Your task to perform on an android device: Go to battery settings Image 0: 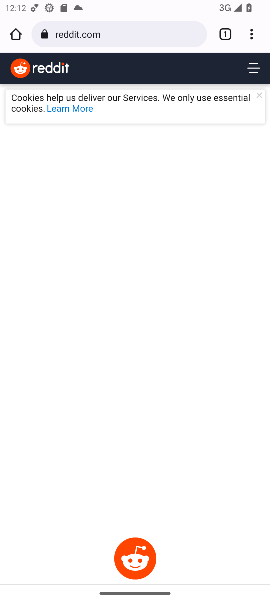
Step 0: press home button
Your task to perform on an android device: Go to battery settings Image 1: 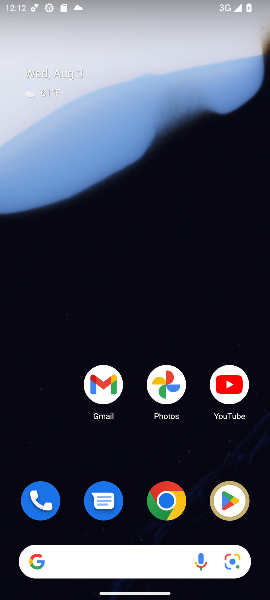
Step 1: drag from (148, 469) to (139, 1)
Your task to perform on an android device: Go to battery settings Image 2: 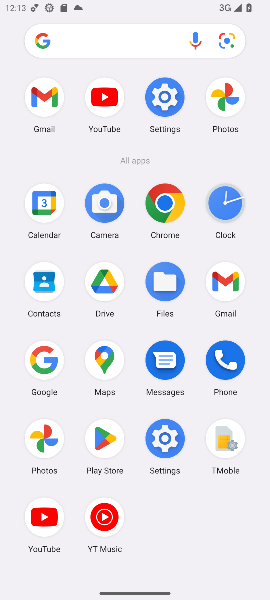
Step 2: click (166, 104)
Your task to perform on an android device: Go to battery settings Image 3: 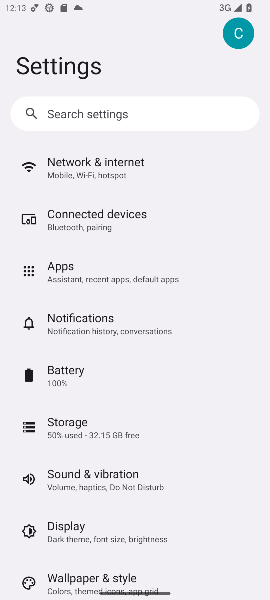
Step 3: click (75, 378)
Your task to perform on an android device: Go to battery settings Image 4: 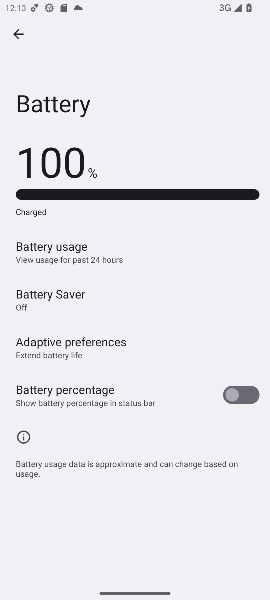
Step 4: task complete